Your task to perform on an android device: turn pop-ups on in chrome Image 0: 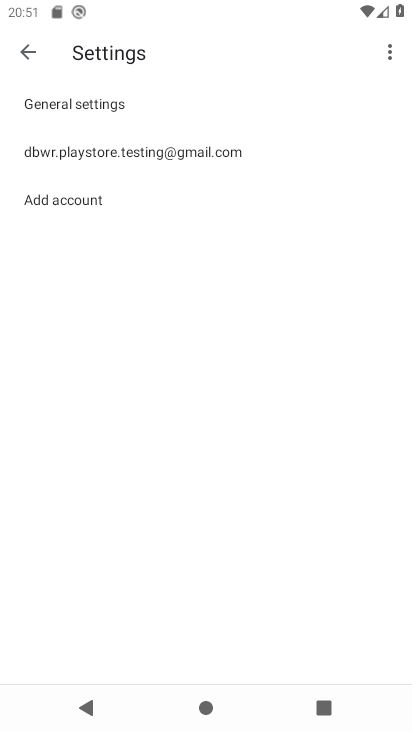
Step 0: press home button
Your task to perform on an android device: turn pop-ups on in chrome Image 1: 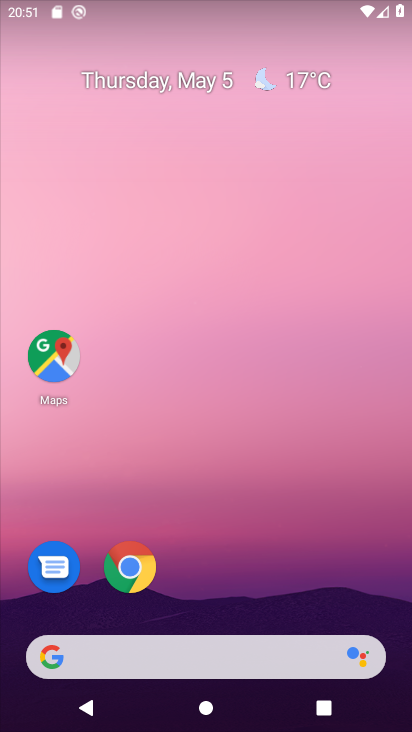
Step 1: drag from (244, 587) to (252, 42)
Your task to perform on an android device: turn pop-ups on in chrome Image 2: 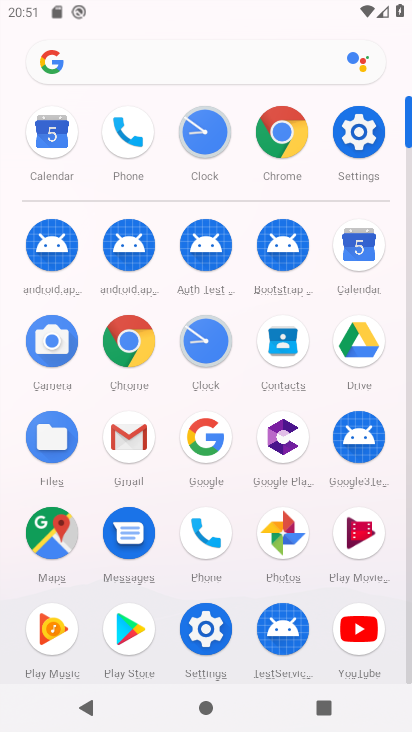
Step 2: click (279, 140)
Your task to perform on an android device: turn pop-ups on in chrome Image 3: 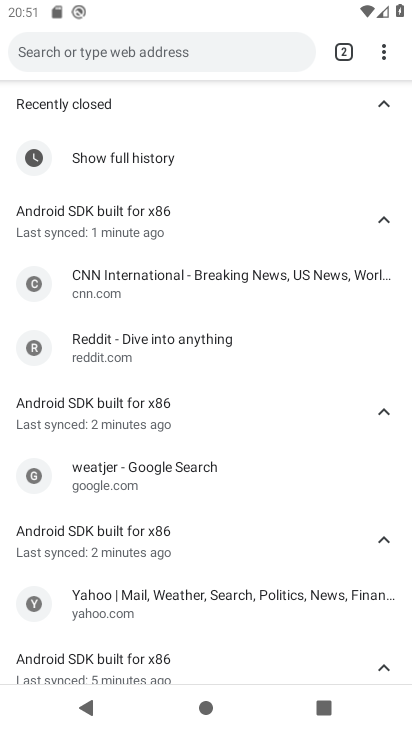
Step 3: drag from (383, 53) to (267, 427)
Your task to perform on an android device: turn pop-ups on in chrome Image 4: 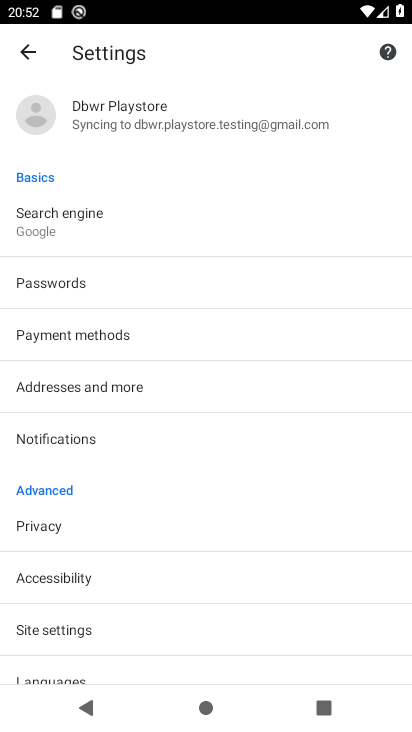
Step 4: click (156, 616)
Your task to perform on an android device: turn pop-ups on in chrome Image 5: 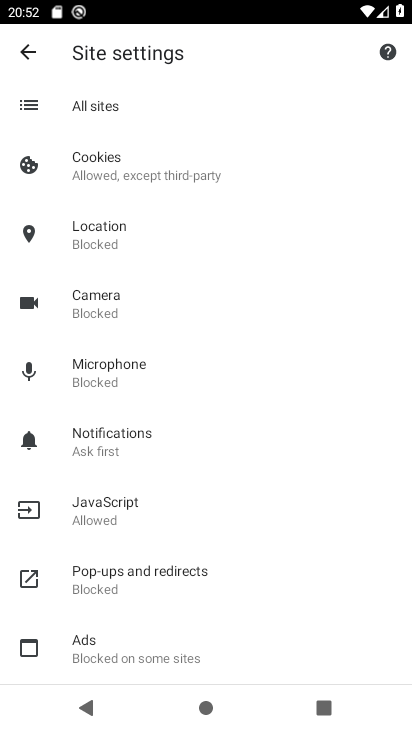
Step 5: click (161, 585)
Your task to perform on an android device: turn pop-ups on in chrome Image 6: 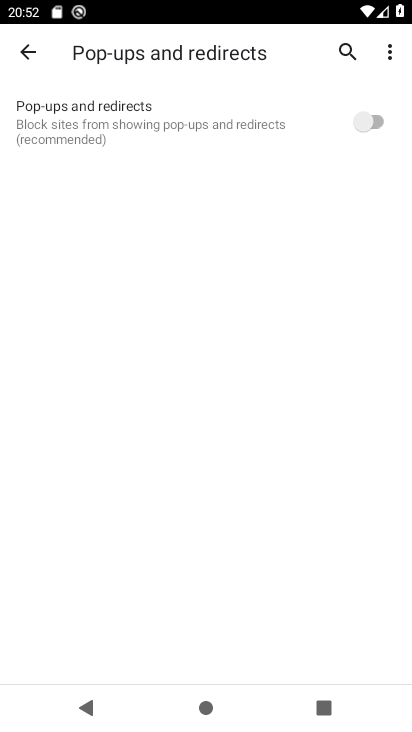
Step 6: click (363, 116)
Your task to perform on an android device: turn pop-ups on in chrome Image 7: 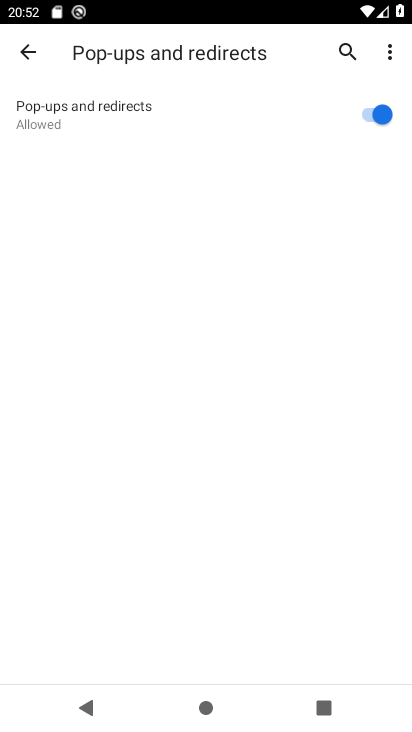
Step 7: task complete